Your task to perform on an android device: Go to display settings Image 0: 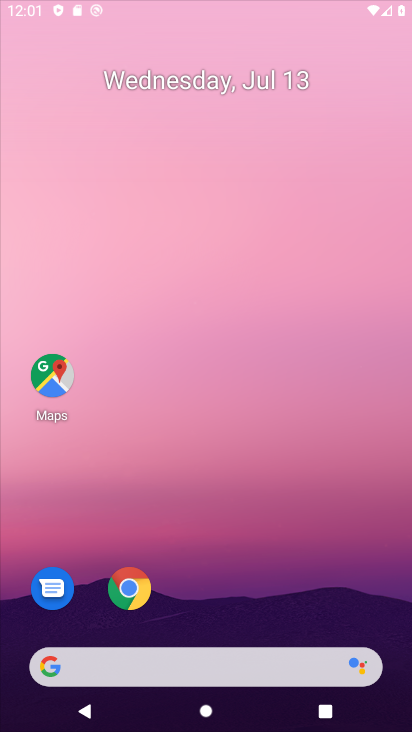
Step 0: press home button
Your task to perform on an android device: Go to display settings Image 1: 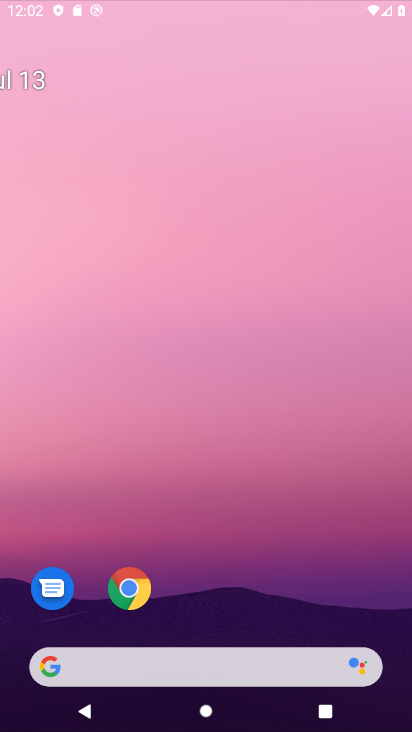
Step 1: drag from (201, 646) to (196, 536)
Your task to perform on an android device: Go to display settings Image 2: 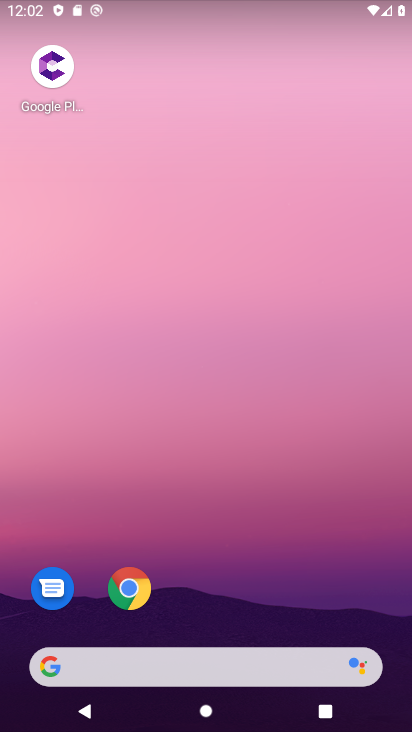
Step 2: drag from (173, 655) to (183, 270)
Your task to perform on an android device: Go to display settings Image 3: 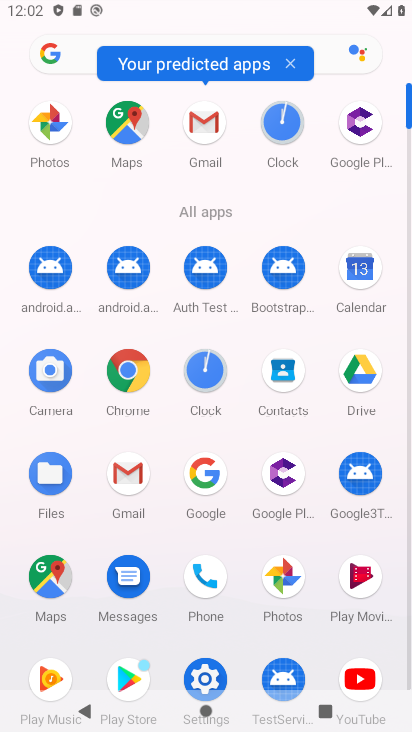
Step 3: click (199, 661)
Your task to perform on an android device: Go to display settings Image 4: 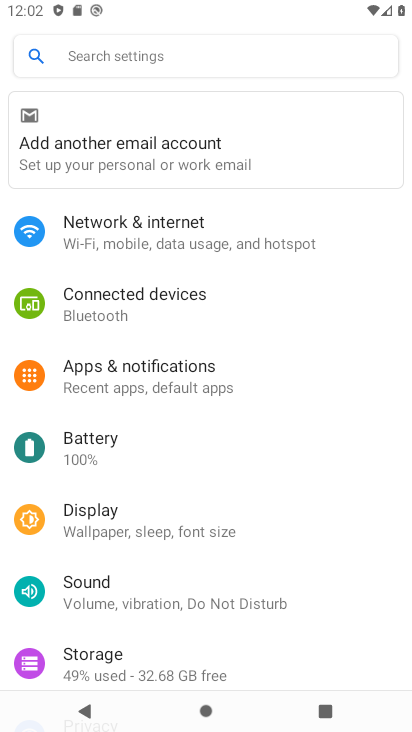
Step 4: click (101, 522)
Your task to perform on an android device: Go to display settings Image 5: 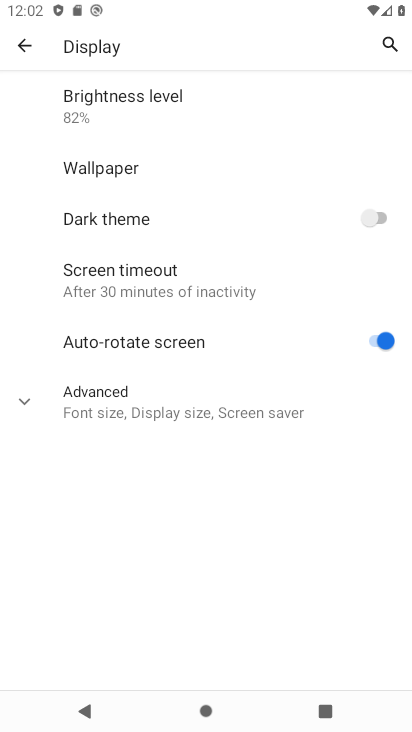
Step 5: click (87, 399)
Your task to perform on an android device: Go to display settings Image 6: 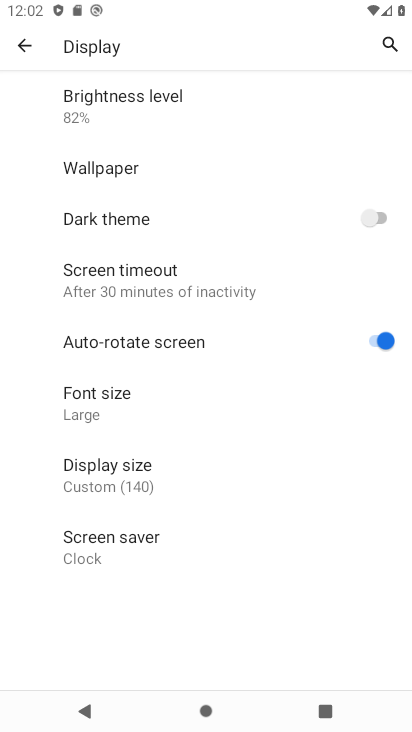
Step 6: task complete